Your task to perform on an android device: snooze an email in the gmail app Image 0: 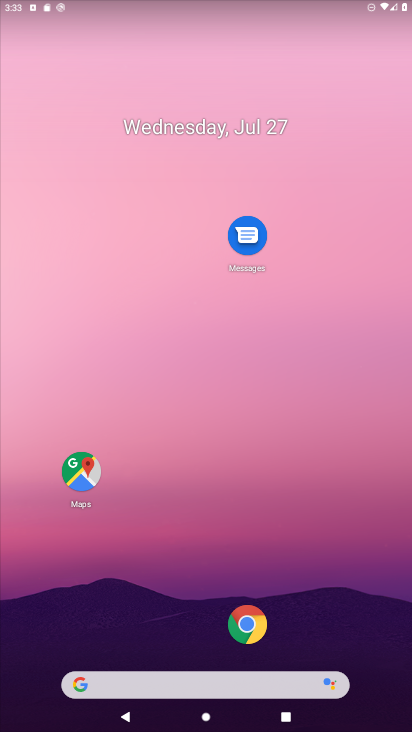
Step 0: drag from (148, 657) to (135, 245)
Your task to perform on an android device: snooze an email in the gmail app Image 1: 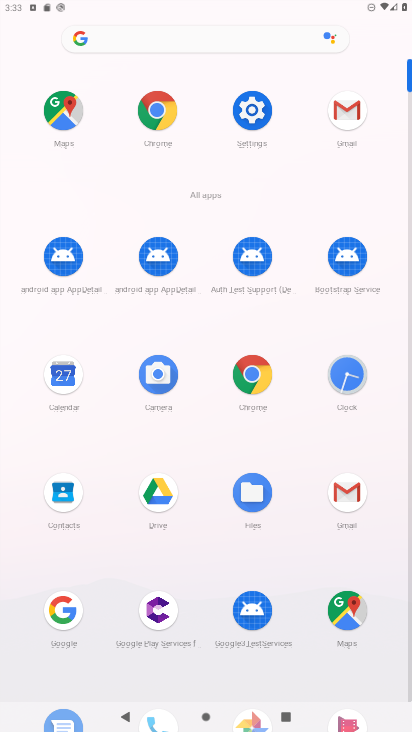
Step 1: click (347, 130)
Your task to perform on an android device: snooze an email in the gmail app Image 2: 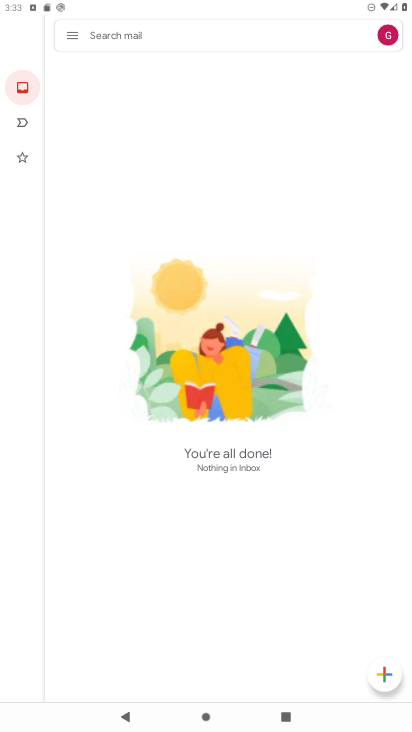
Step 2: task complete